Your task to perform on an android device: toggle javascript in the chrome app Image 0: 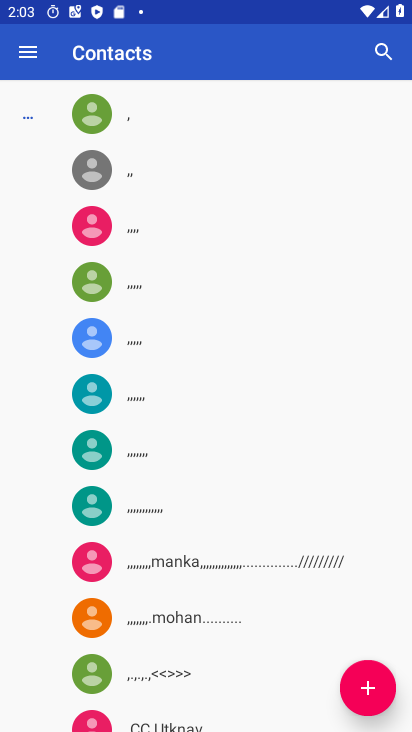
Step 0: press home button
Your task to perform on an android device: toggle javascript in the chrome app Image 1: 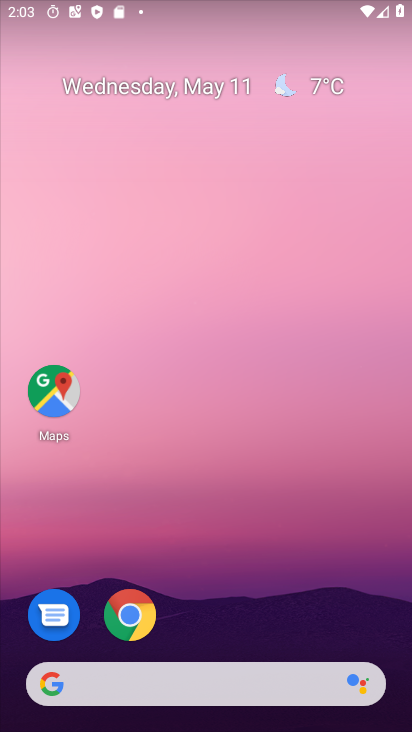
Step 1: click (132, 618)
Your task to perform on an android device: toggle javascript in the chrome app Image 2: 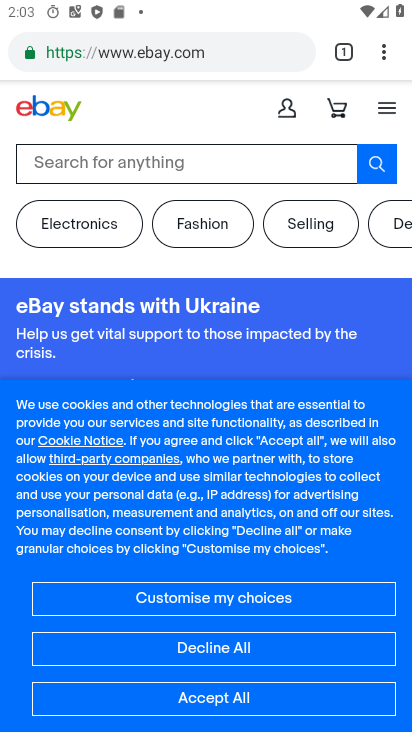
Step 2: click (393, 62)
Your task to perform on an android device: toggle javascript in the chrome app Image 3: 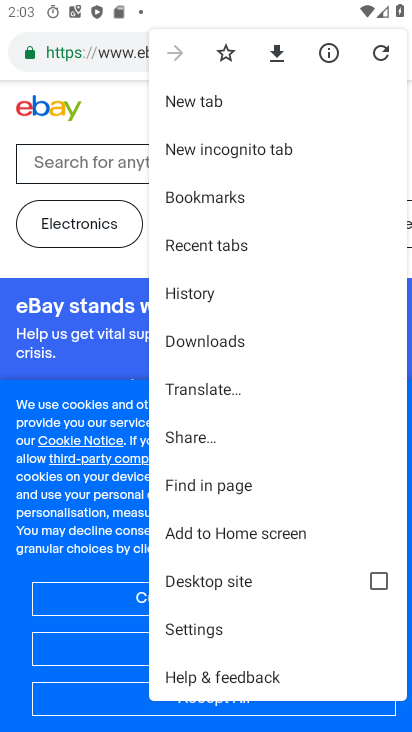
Step 3: click (229, 631)
Your task to perform on an android device: toggle javascript in the chrome app Image 4: 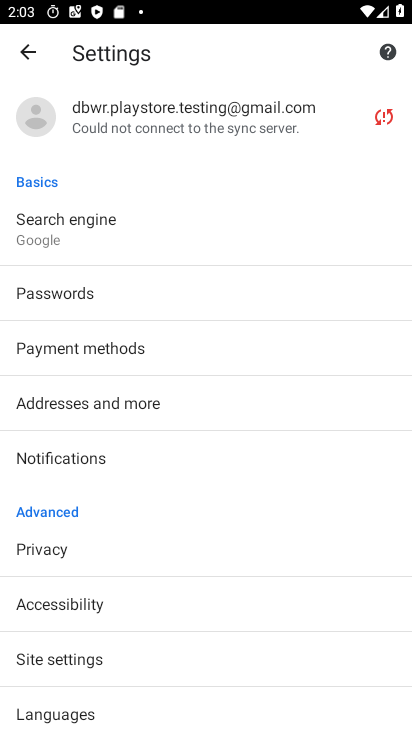
Step 4: click (98, 653)
Your task to perform on an android device: toggle javascript in the chrome app Image 5: 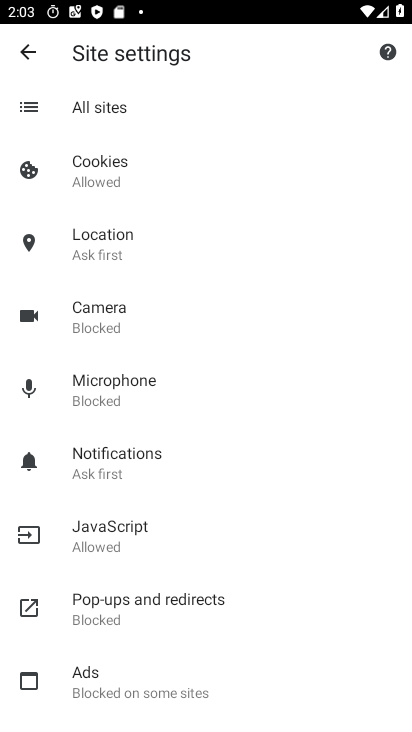
Step 5: click (130, 526)
Your task to perform on an android device: toggle javascript in the chrome app Image 6: 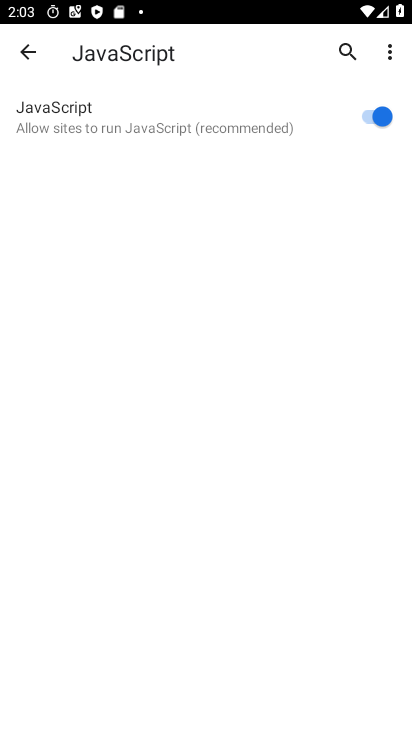
Step 6: click (373, 118)
Your task to perform on an android device: toggle javascript in the chrome app Image 7: 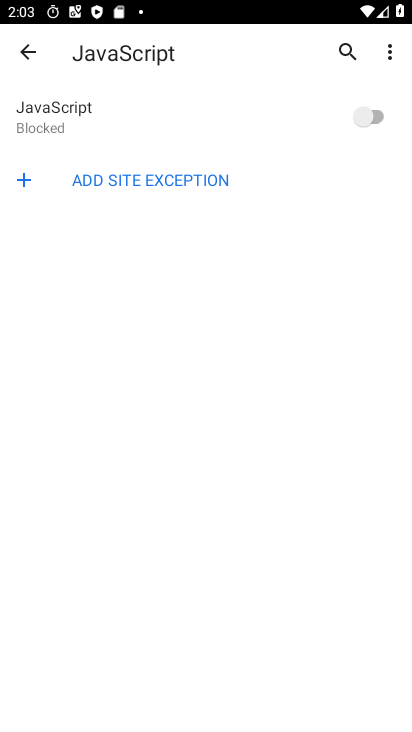
Step 7: task complete